Your task to perform on an android device: Clear the shopping cart on target. Search for apple airpods on target, select the first entry, add it to the cart, then select checkout. Image 0: 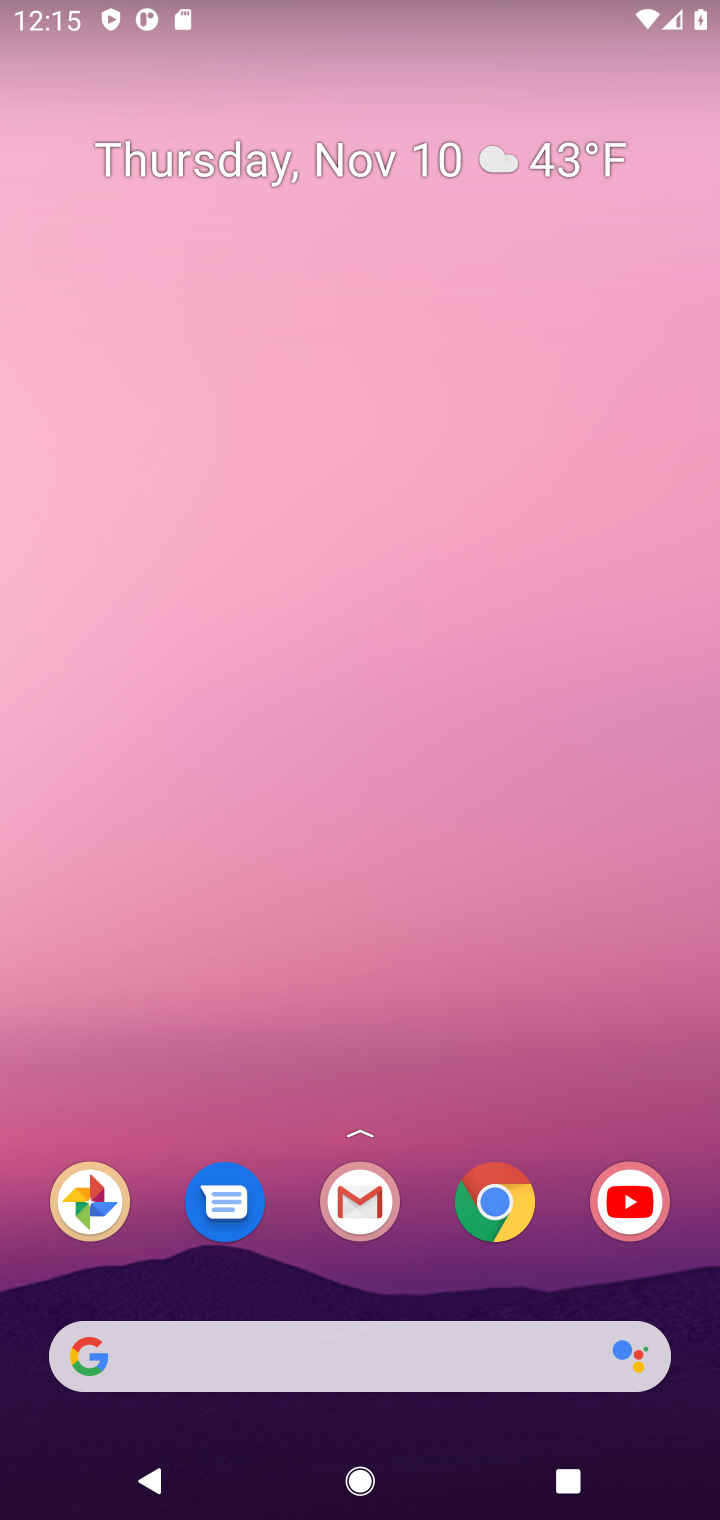
Step 0: click (518, 1208)
Your task to perform on an android device: Clear the shopping cart on target. Search for apple airpods on target, select the first entry, add it to the cart, then select checkout. Image 1: 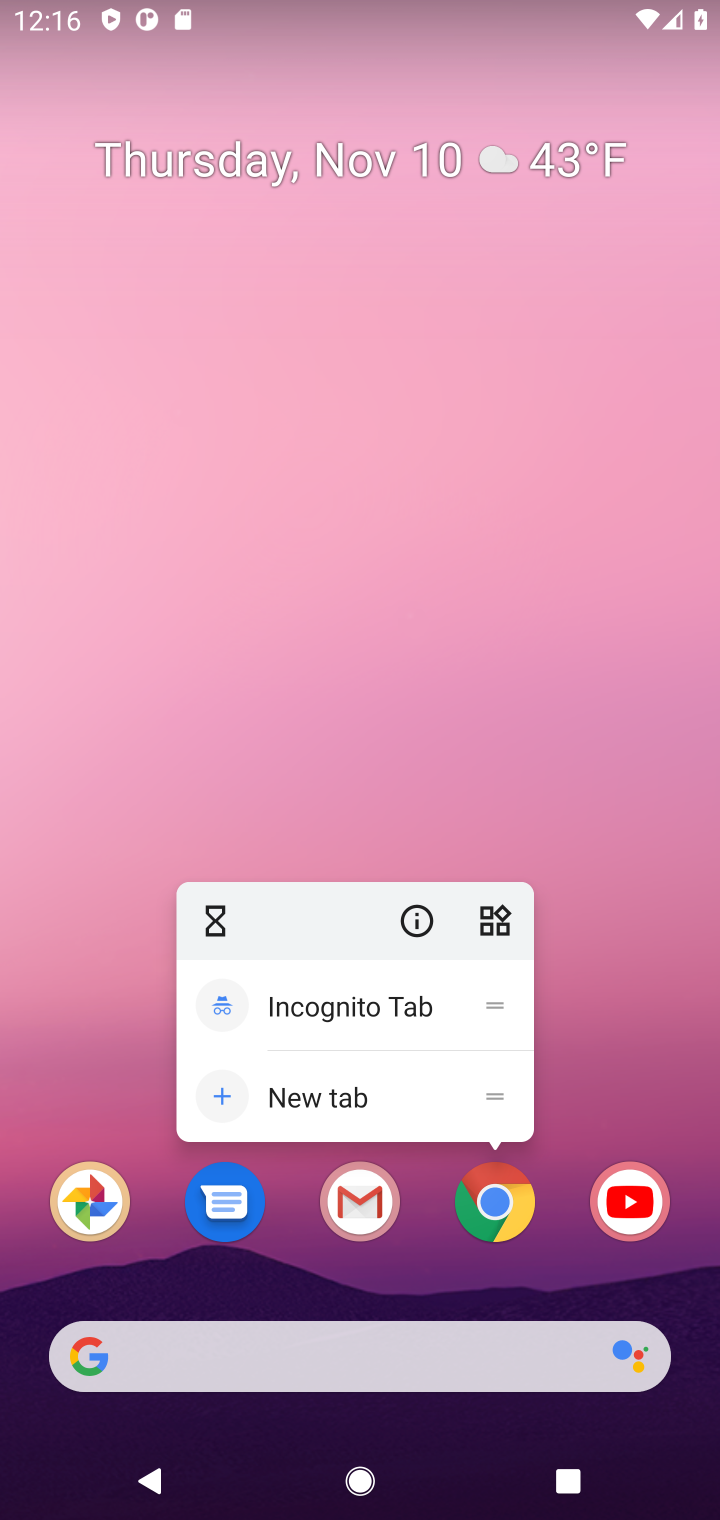
Step 1: click (518, 1208)
Your task to perform on an android device: Clear the shopping cart on target. Search for apple airpods on target, select the first entry, add it to the cart, then select checkout. Image 2: 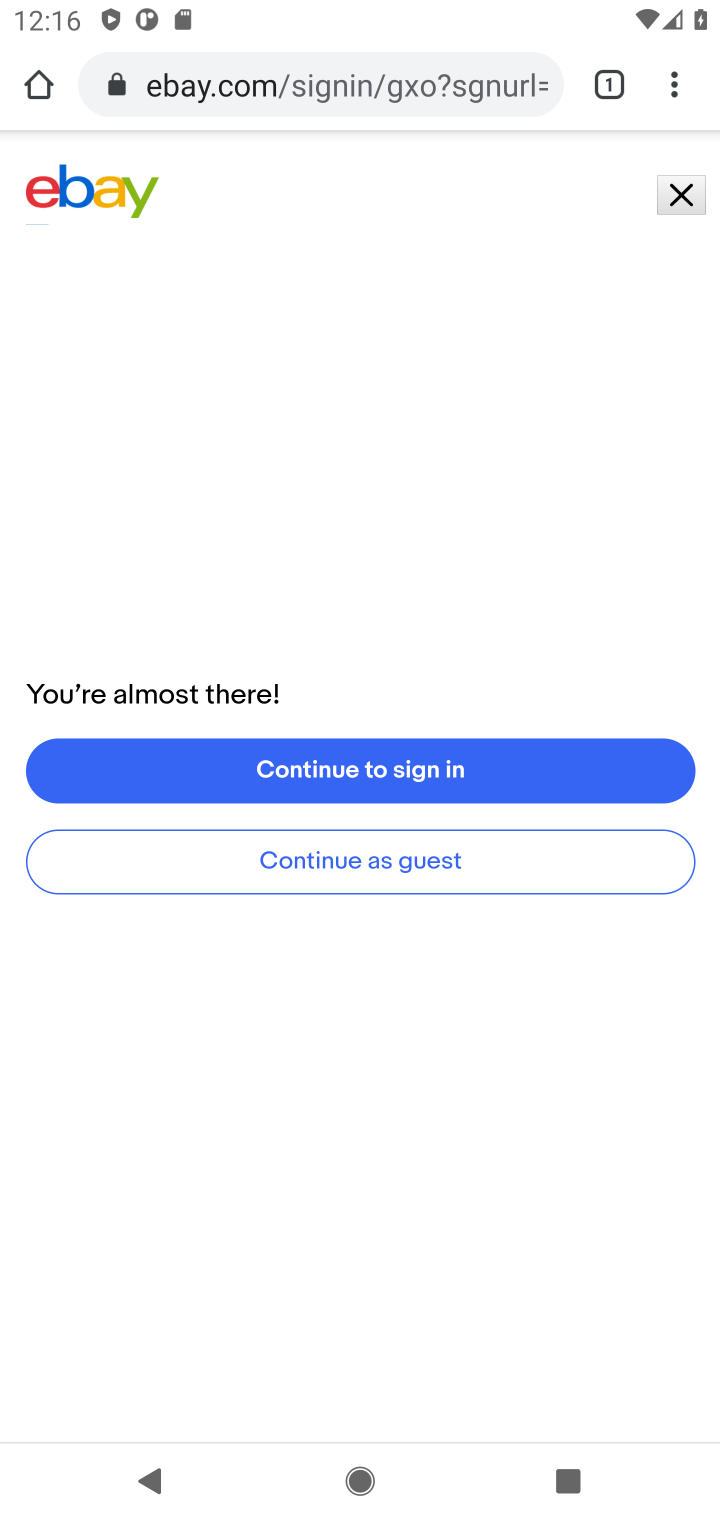
Step 2: click (463, 89)
Your task to perform on an android device: Clear the shopping cart on target. Search for apple airpods on target, select the first entry, add it to the cart, then select checkout. Image 3: 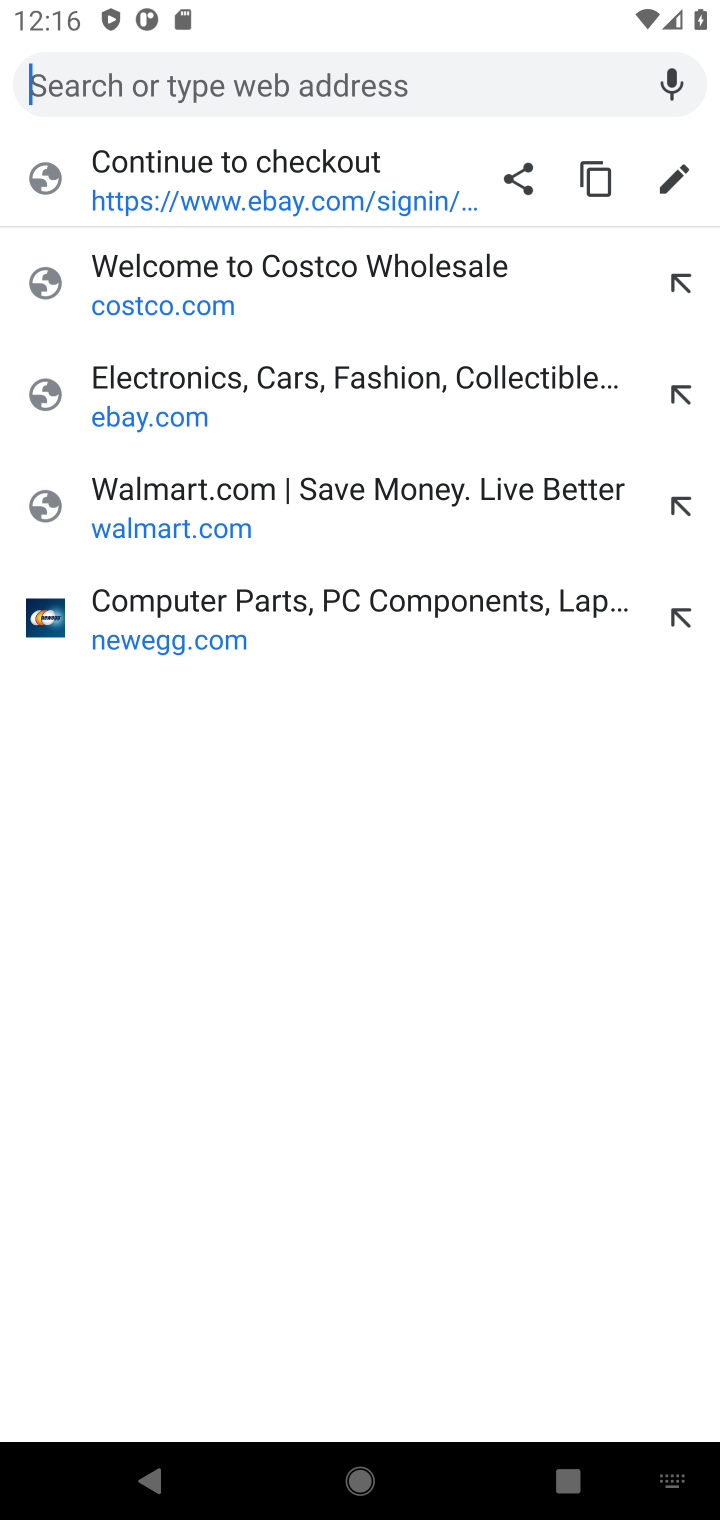
Step 3: type "target"
Your task to perform on an android device: Clear the shopping cart on target. Search for apple airpods on target, select the first entry, add it to the cart, then select checkout. Image 4: 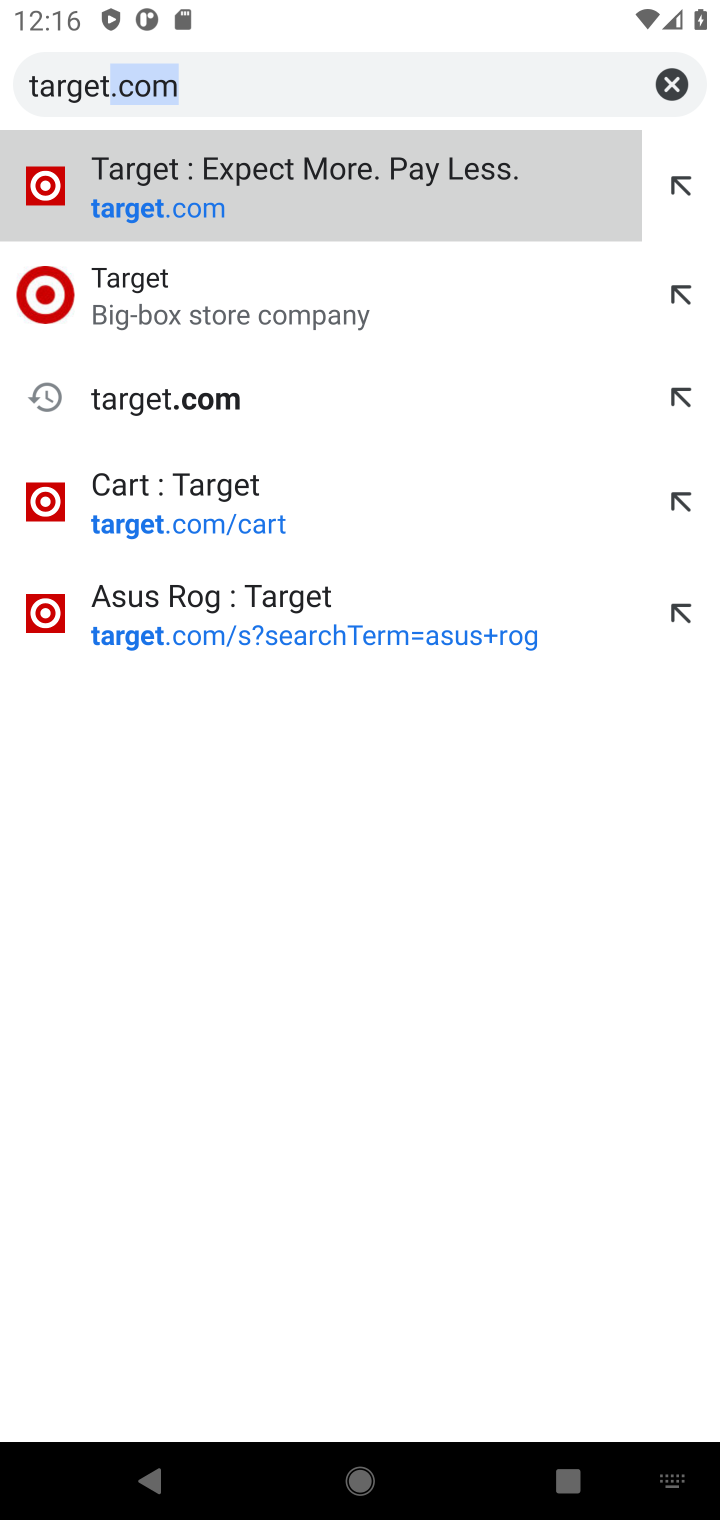
Step 4: press enter
Your task to perform on an android device: Clear the shopping cart on target. Search for apple airpods on target, select the first entry, add it to the cart, then select checkout. Image 5: 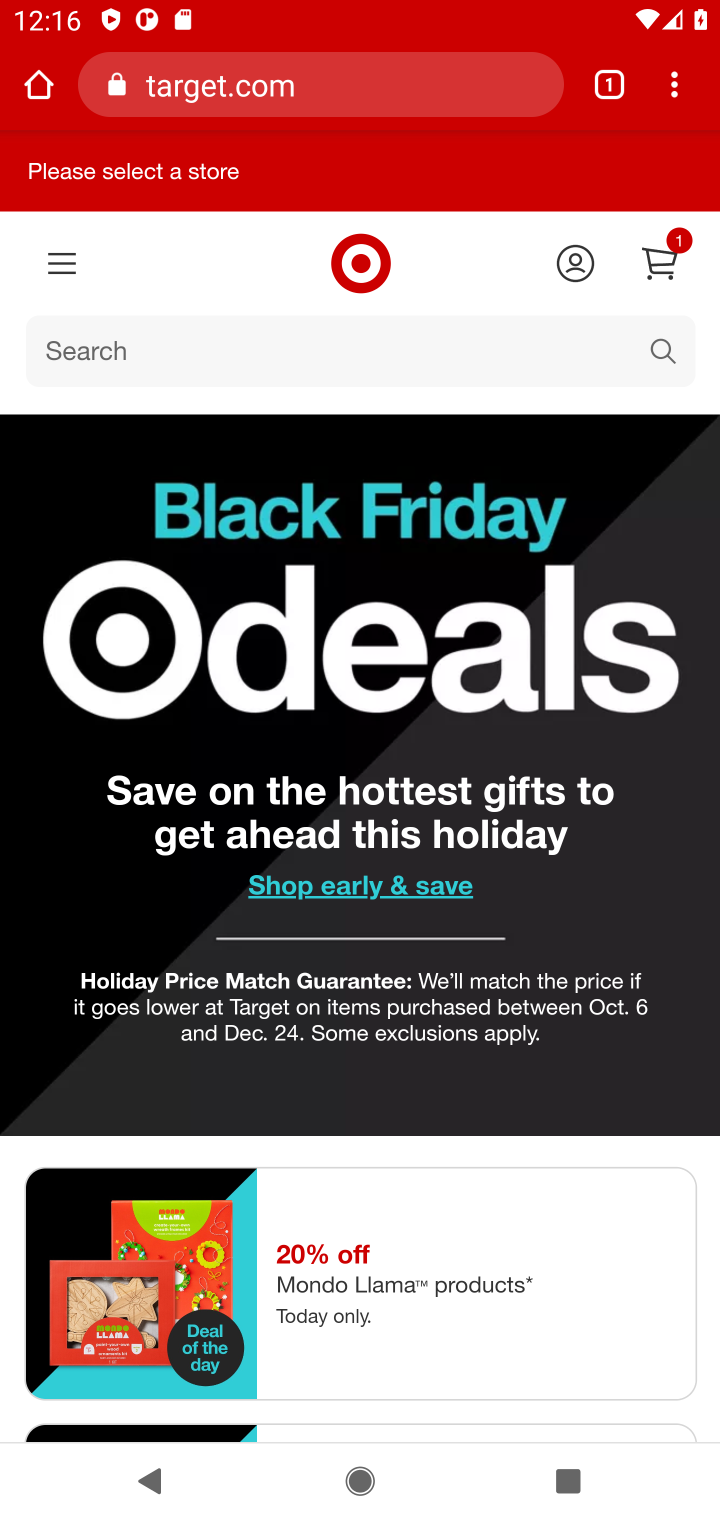
Step 5: click (656, 268)
Your task to perform on an android device: Clear the shopping cart on target. Search for apple airpods on target, select the first entry, add it to the cart, then select checkout. Image 6: 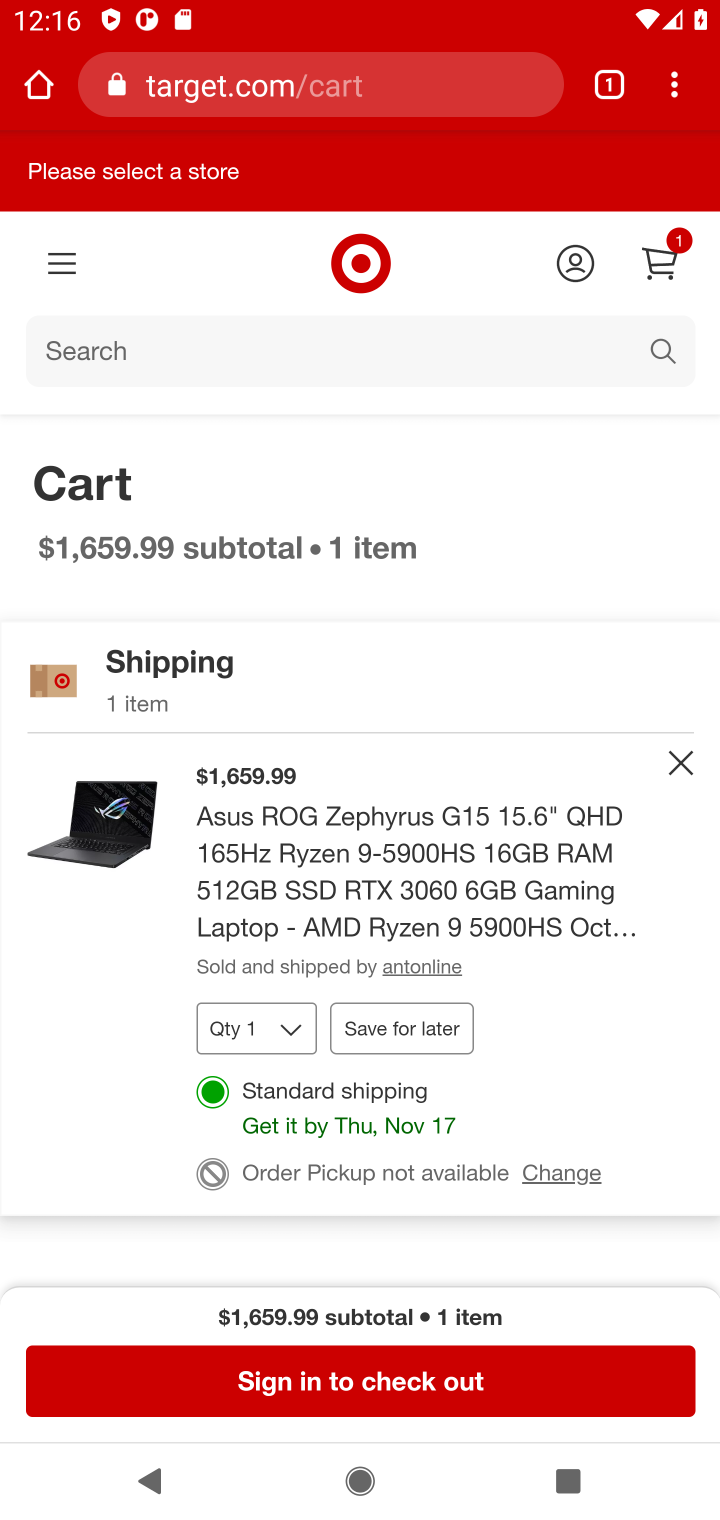
Step 6: drag from (584, 931) to (559, 569)
Your task to perform on an android device: Clear the shopping cart on target. Search for apple airpods on target, select the first entry, add it to the cart, then select checkout. Image 7: 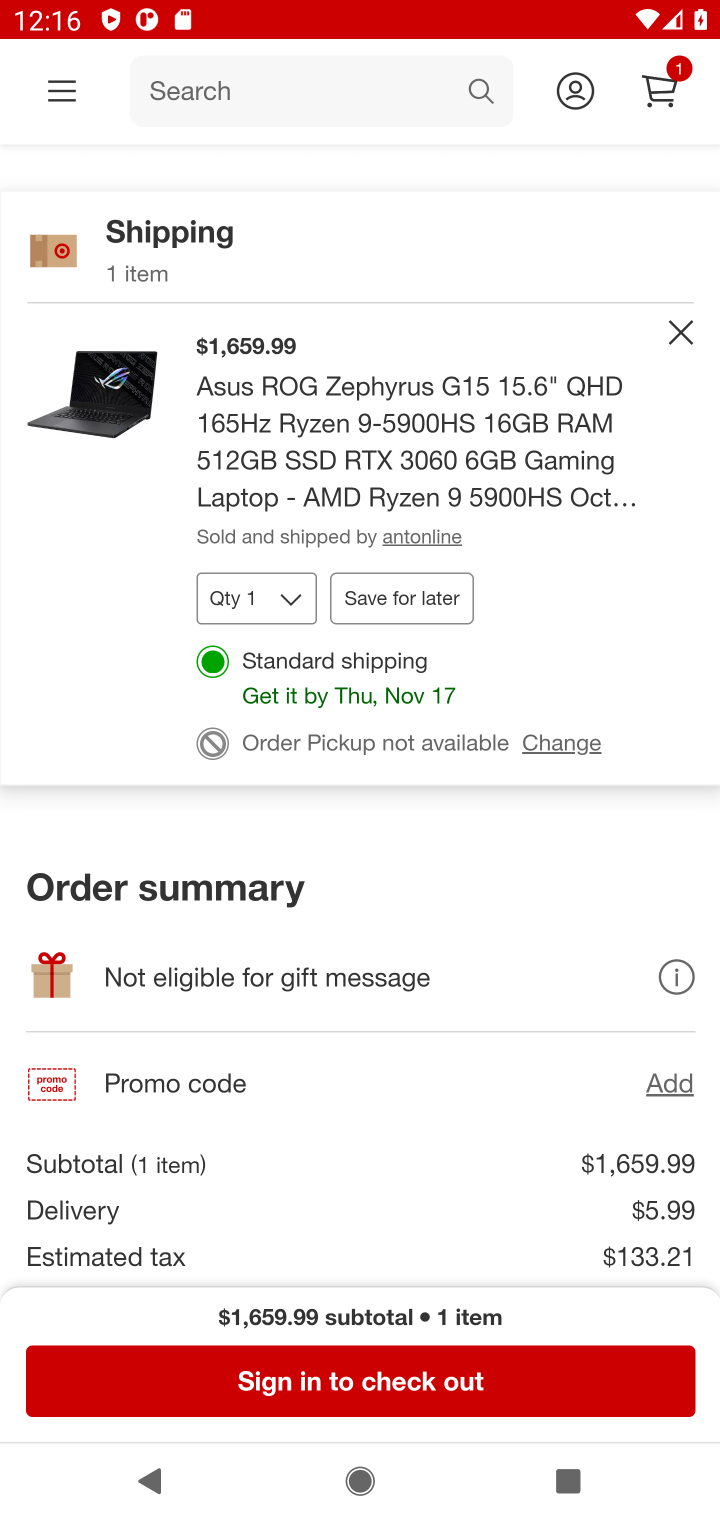
Step 7: click (685, 332)
Your task to perform on an android device: Clear the shopping cart on target. Search for apple airpods on target, select the first entry, add it to the cart, then select checkout. Image 8: 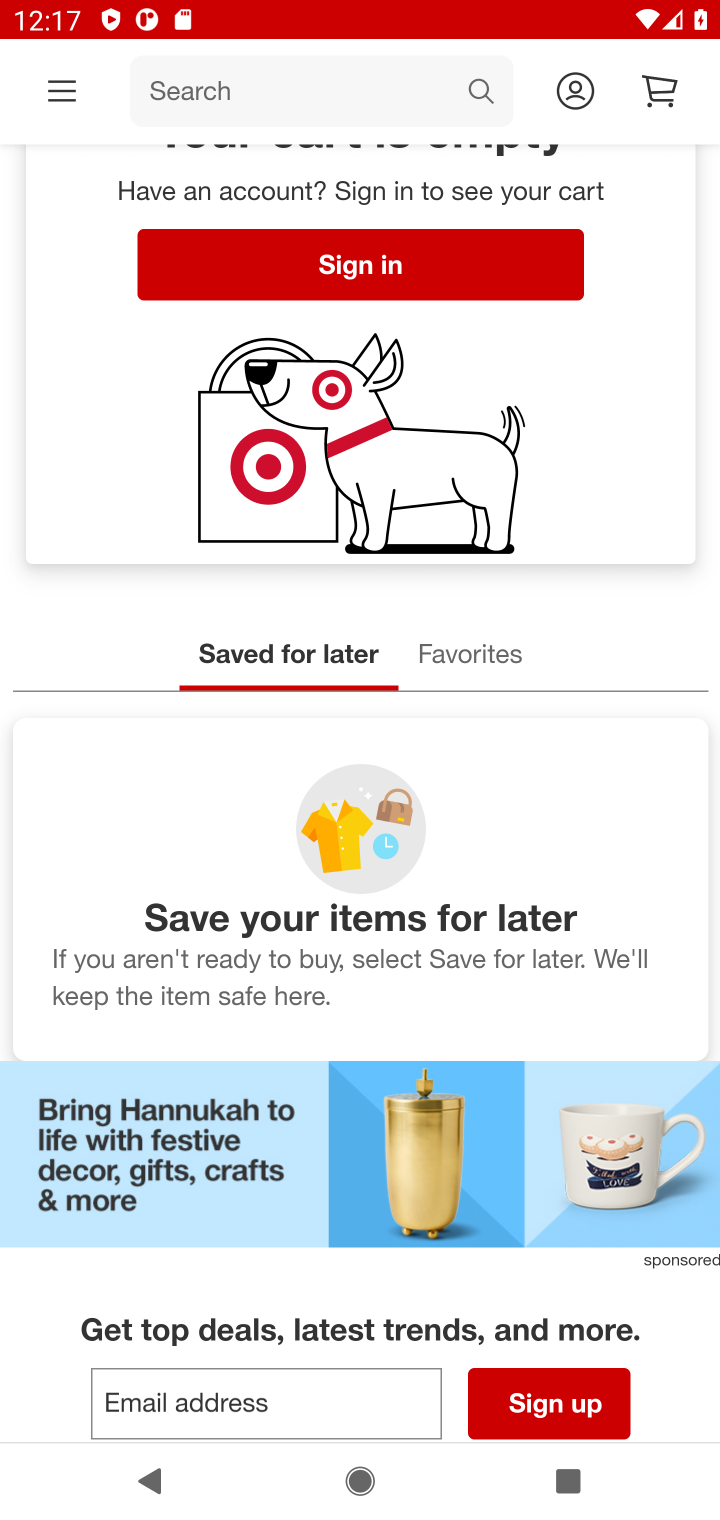
Step 8: drag from (526, 472) to (717, 1185)
Your task to perform on an android device: Clear the shopping cart on target. Search for apple airpods on target, select the first entry, add it to the cart, then select checkout. Image 9: 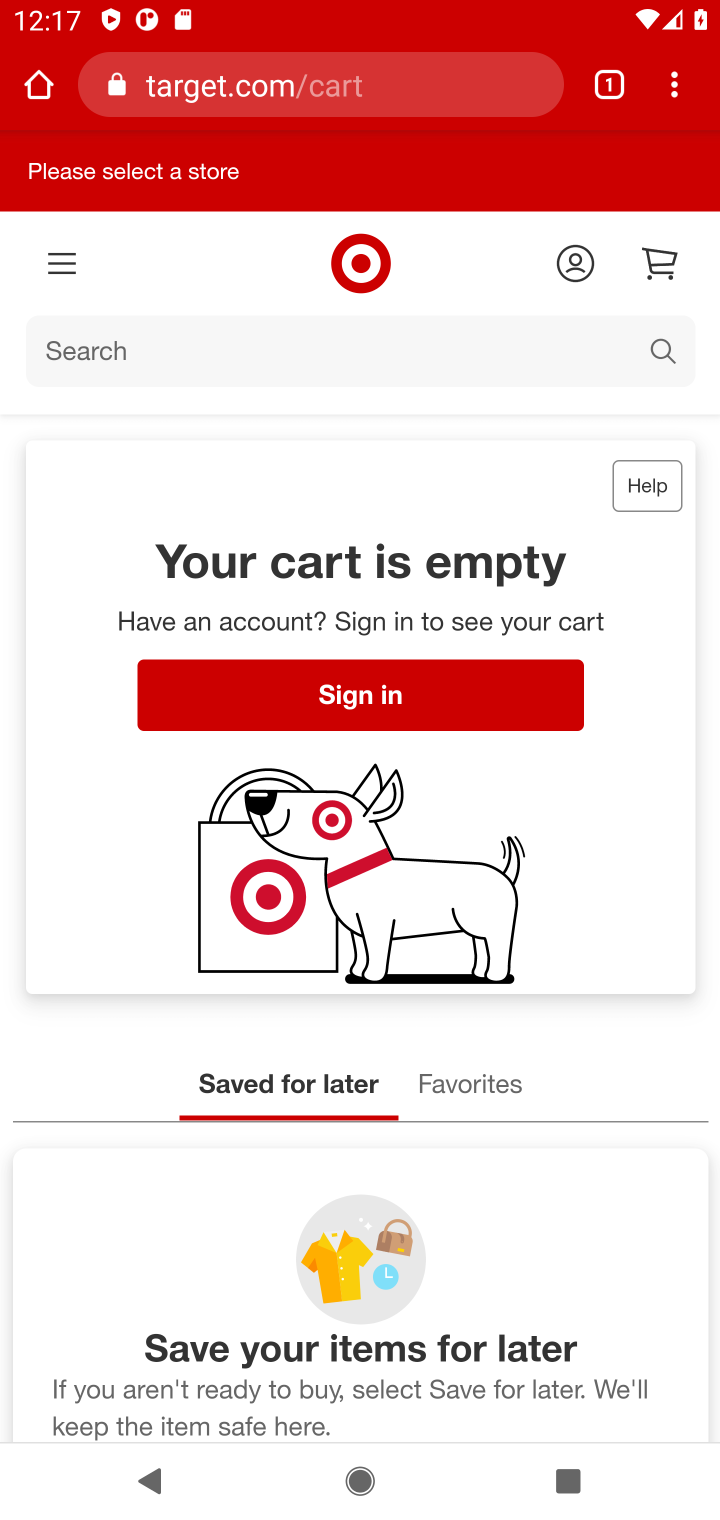
Step 9: click (662, 356)
Your task to perform on an android device: Clear the shopping cart on target. Search for apple airpods on target, select the first entry, add it to the cart, then select checkout. Image 10: 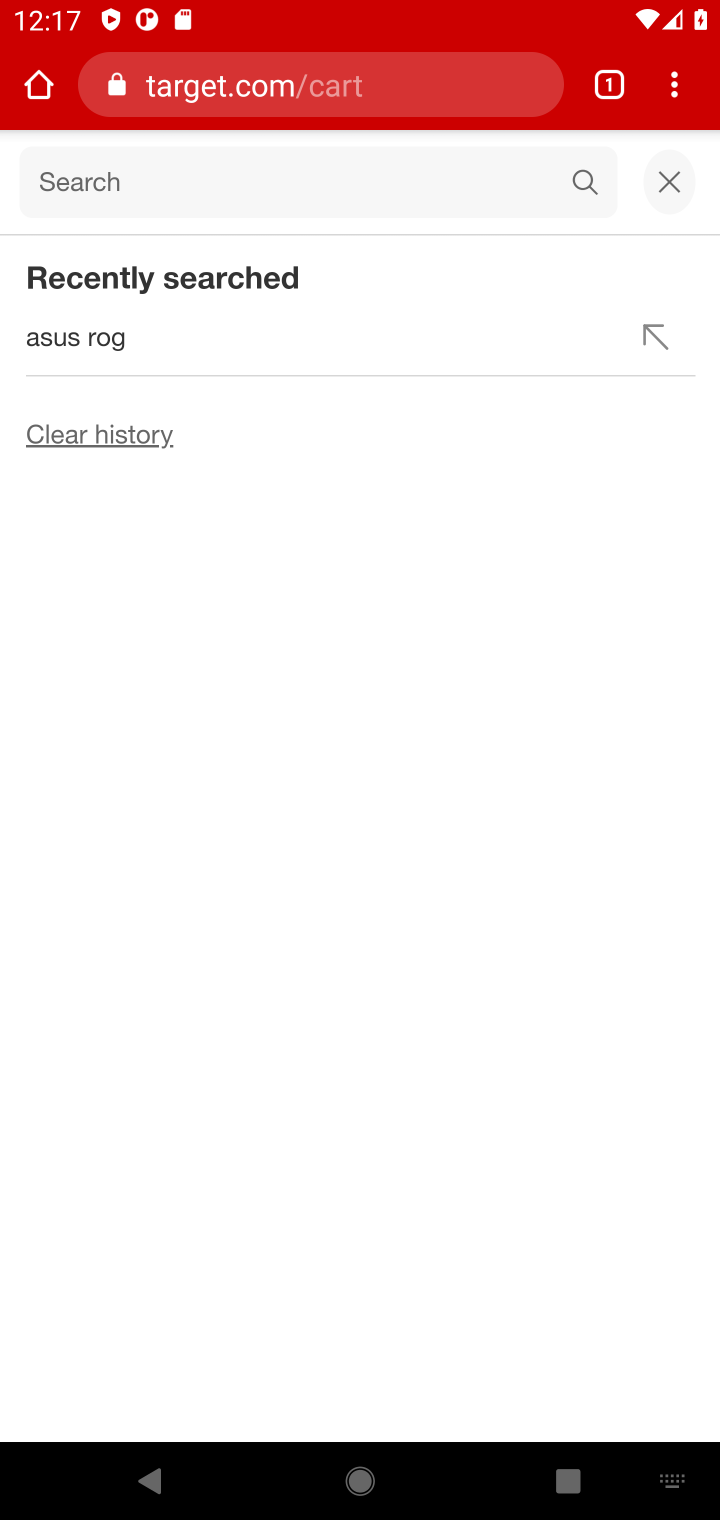
Step 10: type "apple airpods"
Your task to perform on an android device: Clear the shopping cart on target. Search for apple airpods on target, select the first entry, add it to the cart, then select checkout. Image 11: 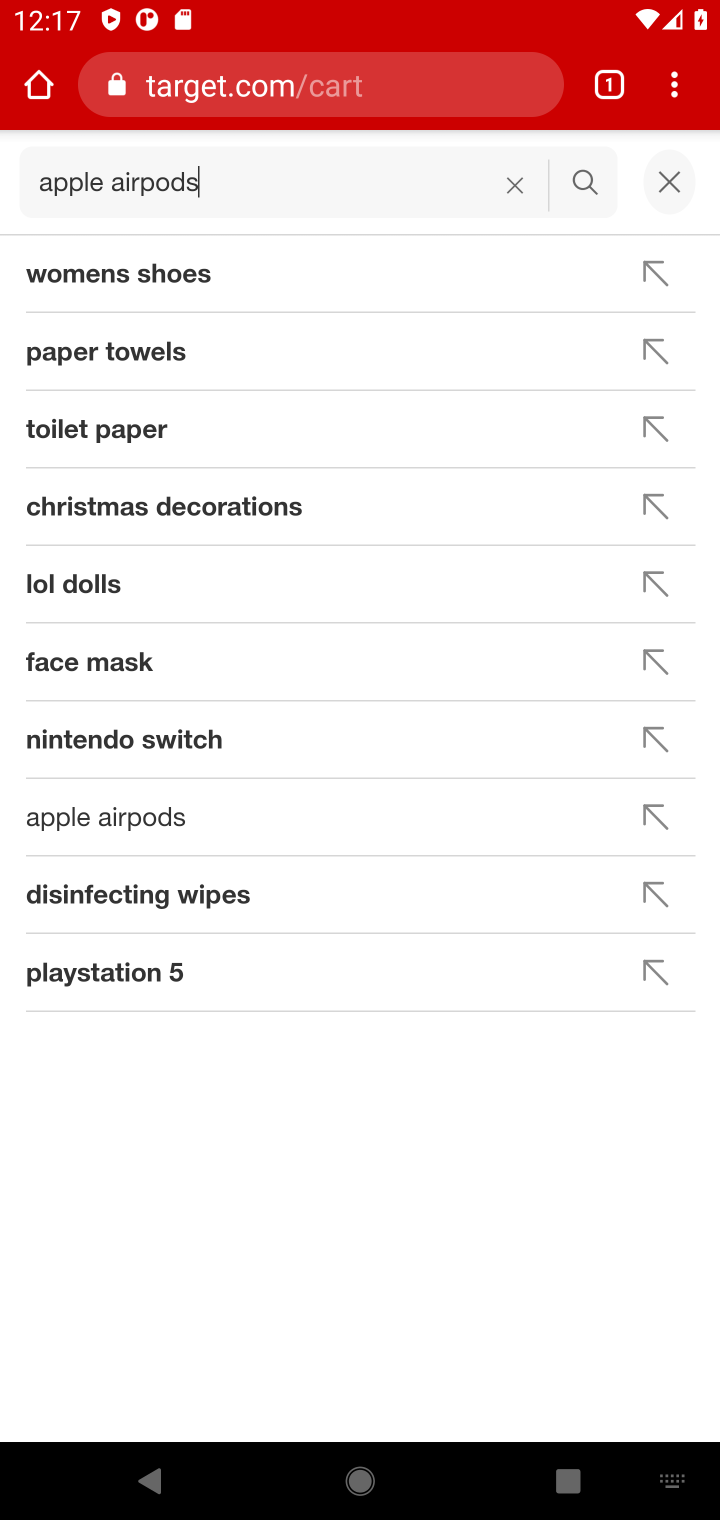
Step 11: press enter
Your task to perform on an android device: Clear the shopping cart on target. Search for apple airpods on target, select the first entry, add it to the cart, then select checkout. Image 12: 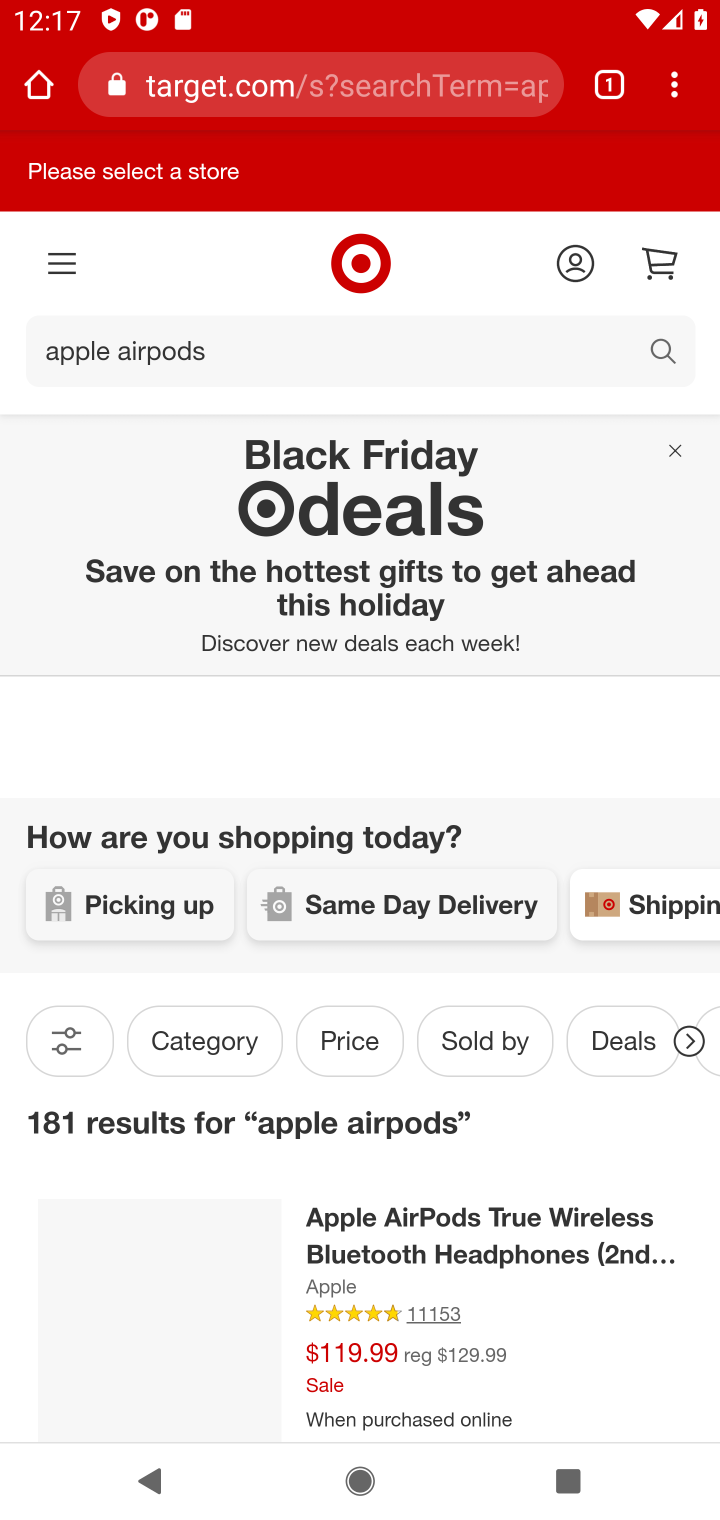
Step 12: drag from (564, 1262) to (447, 718)
Your task to perform on an android device: Clear the shopping cart on target. Search for apple airpods on target, select the first entry, add it to the cart, then select checkout. Image 13: 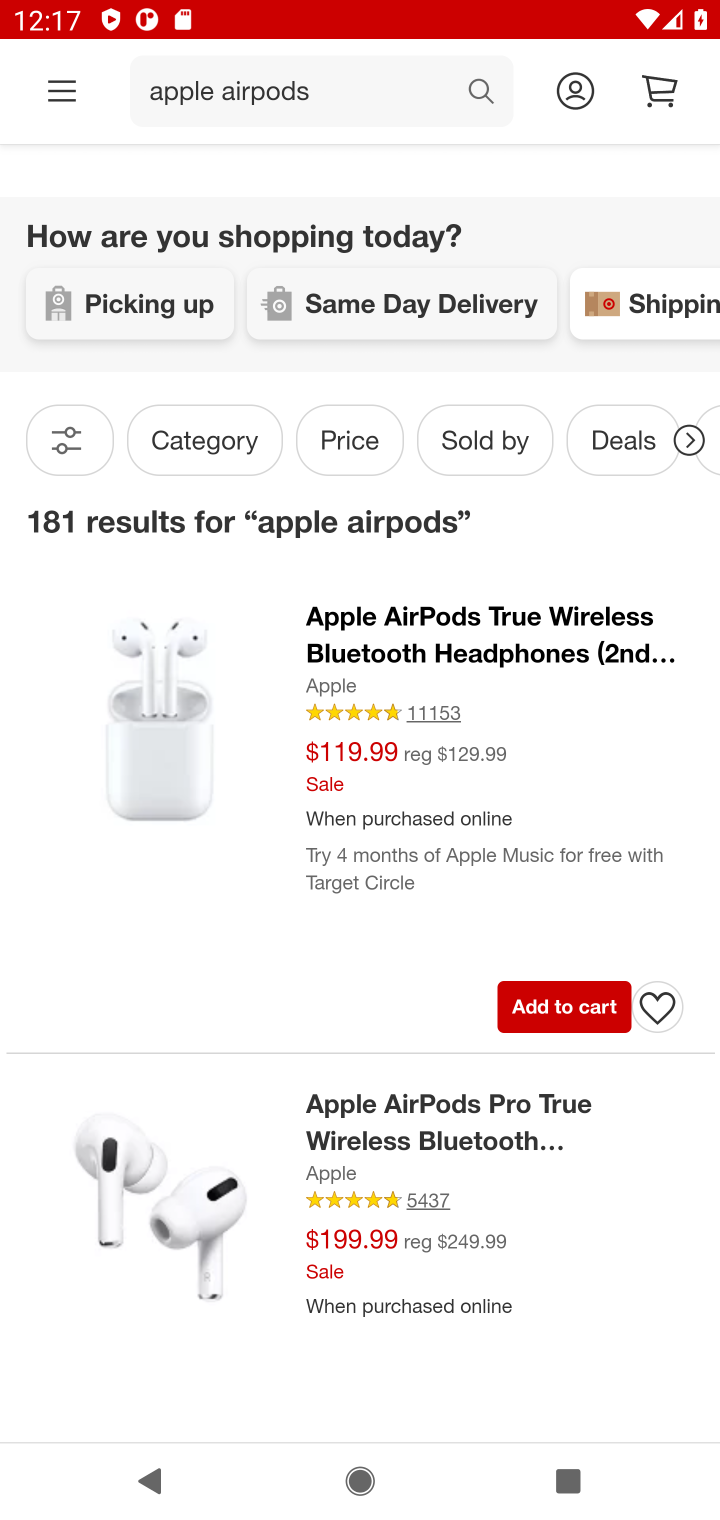
Step 13: click (177, 767)
Your task to perform on an android device: Clear the shopping cart on target. Search for apple airpods on target, select the first entry, add it to the cart, then select checkout. Image 14: 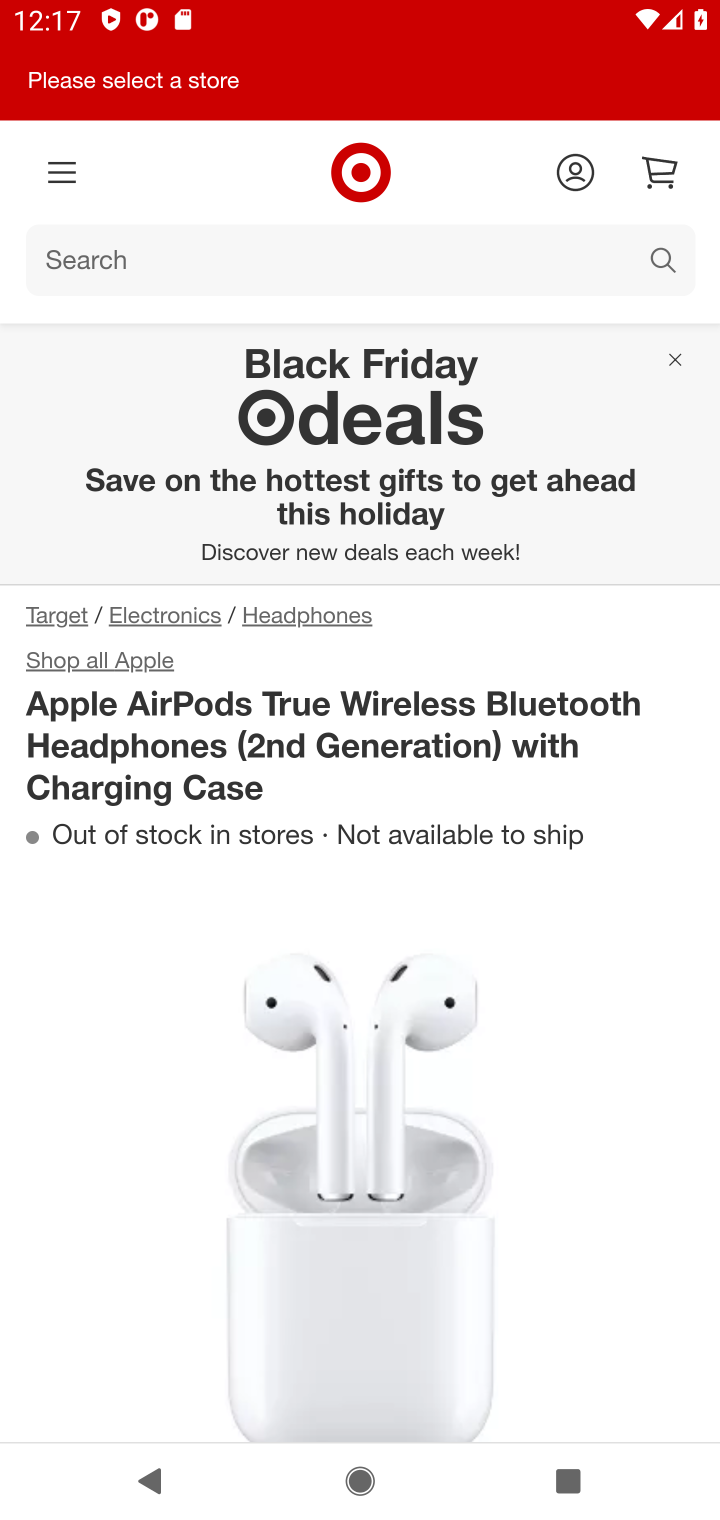
Step 14: drag from (572, 1235) to (533, 678)
Your task to perform on an android device: Clear the shopping cart on target. Search for apple airpods on target, select the first entry, add it to the cart, then select checkout. Image 15: 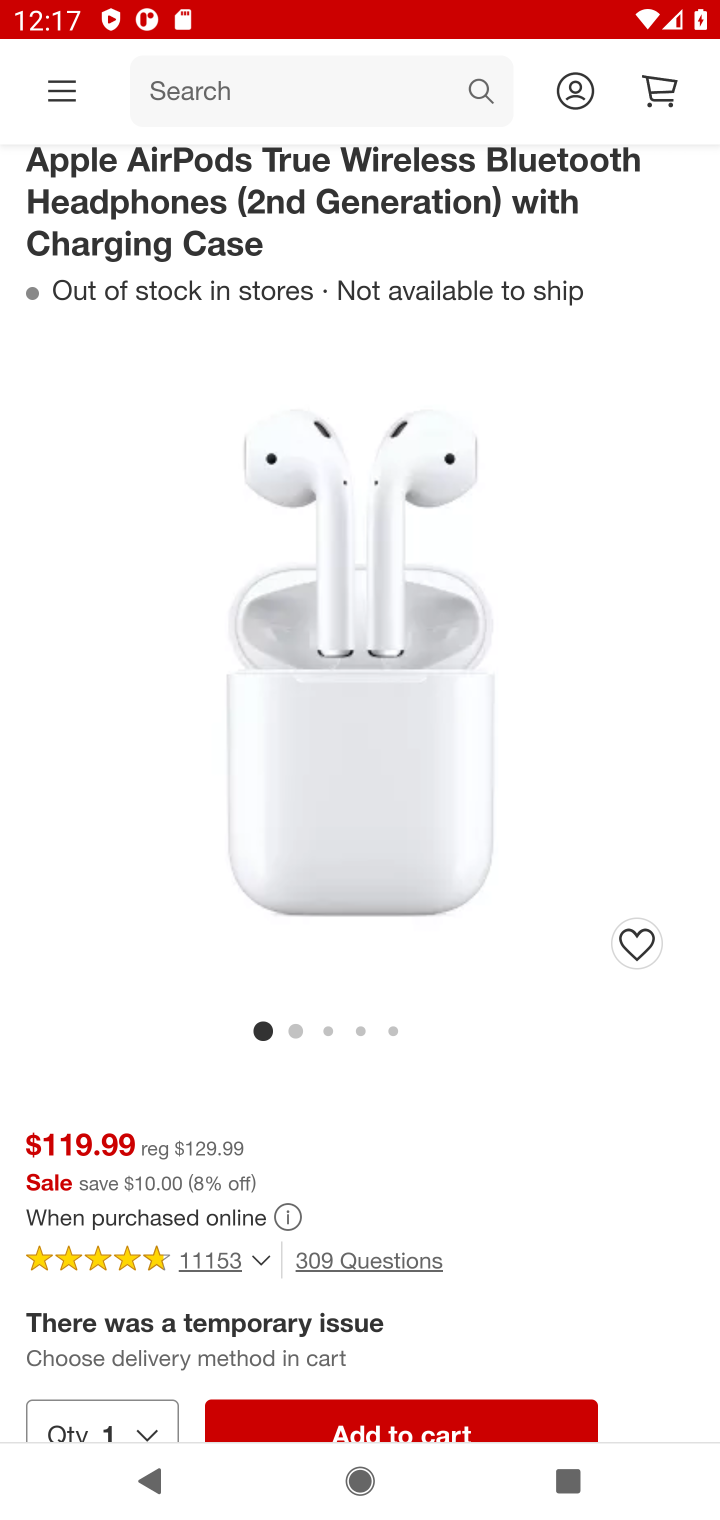
Step 15: drag from (631, 1178) to (506, 498)
Your task to perform on an android device: Clear the shopping cart on target. Search for apple airpods on target, select the first entry, add it to the cart, then select checkout. Image 16: 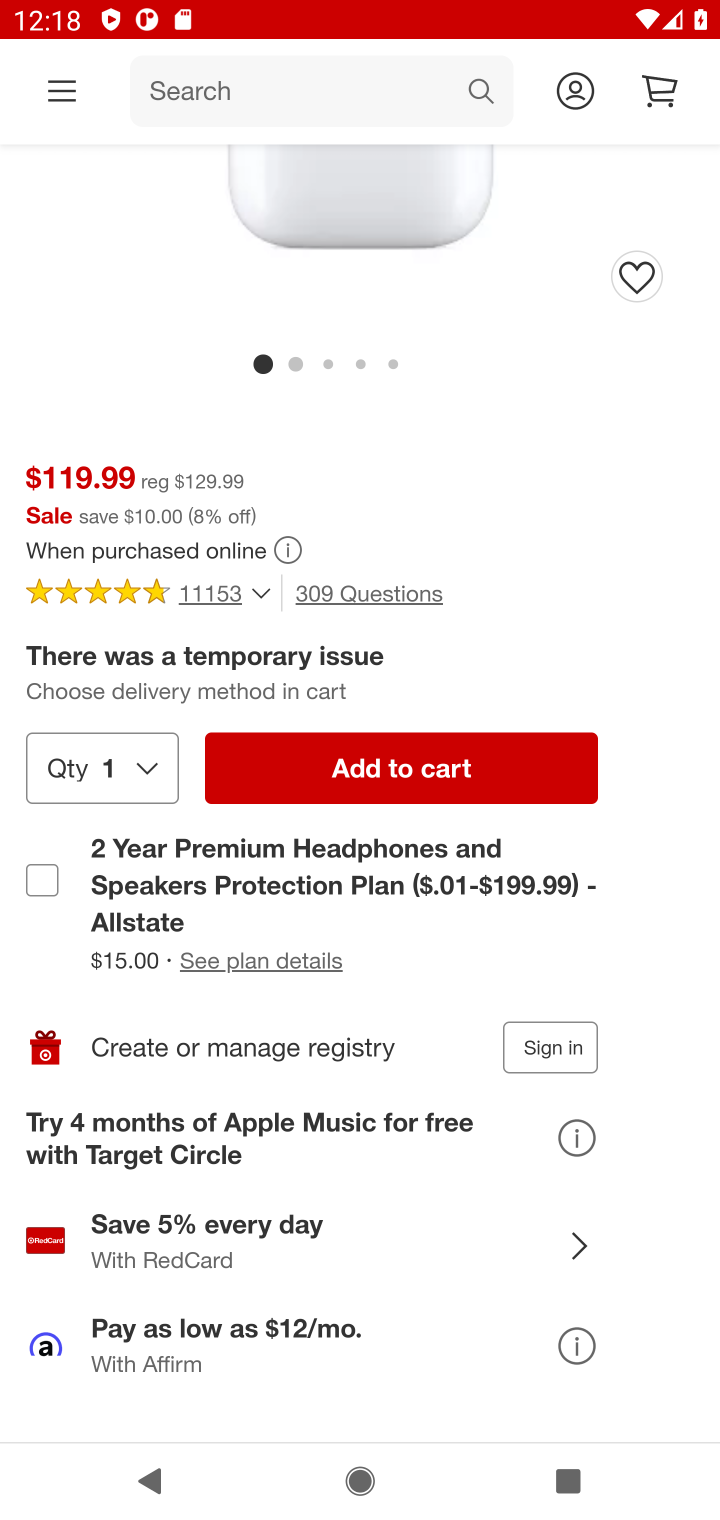
Step 16: click (424, 758)
Your task to perform on an android device: Clear the shopping cart on target. Search for apple airpods on target, select the first entry, add it to the cart, then select checkout. Image 17: 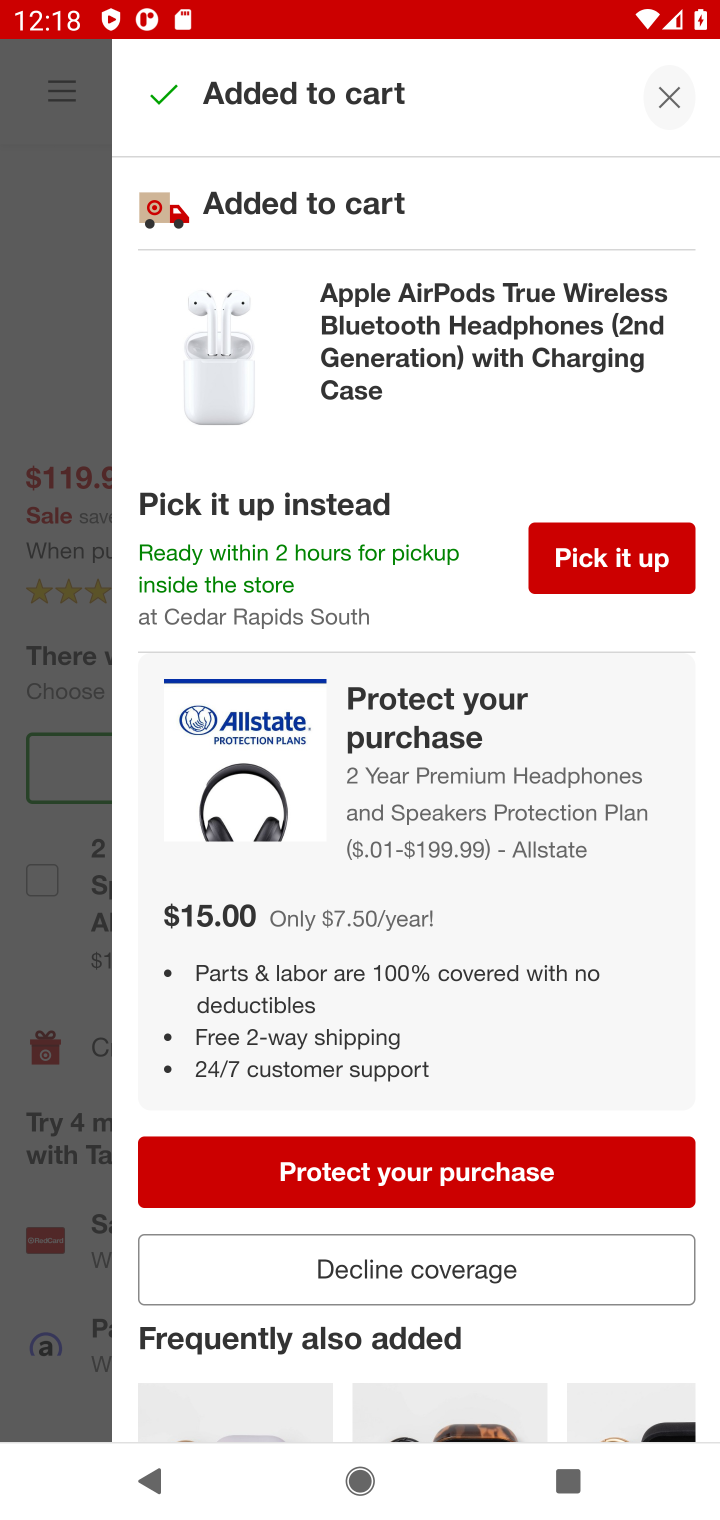
Step 17: click (671, 96)
Your task to perform on an android device: Clear the shopping cart on target. Search for apple airpods on target, select the first entry, add it to the cart, then select checkout. Image 18: 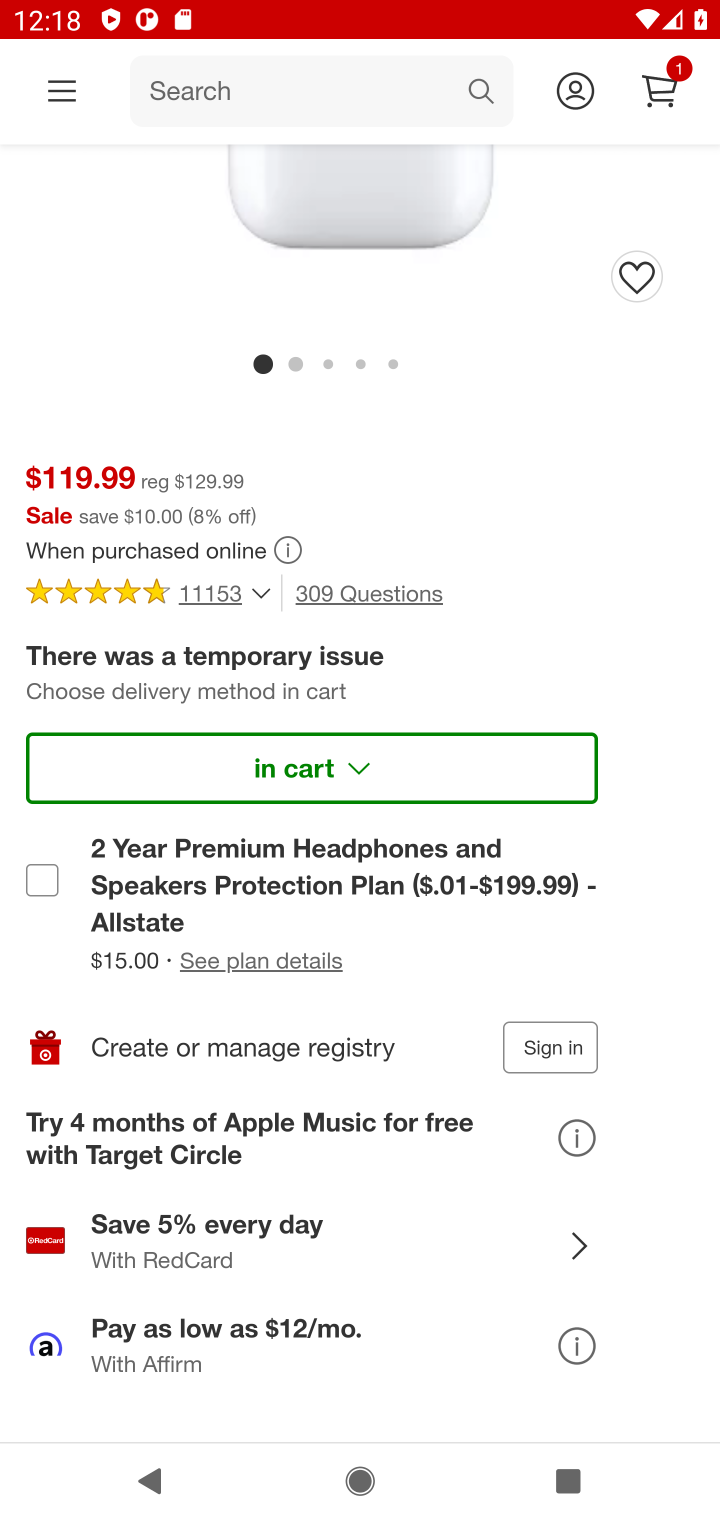
Step 18: click (671, 96)
Your task to perform on an android device: Clear the shopping cart on target. Search for apple airpods on target, select the first entry, add it to the cart, then select checkout. Image 19: 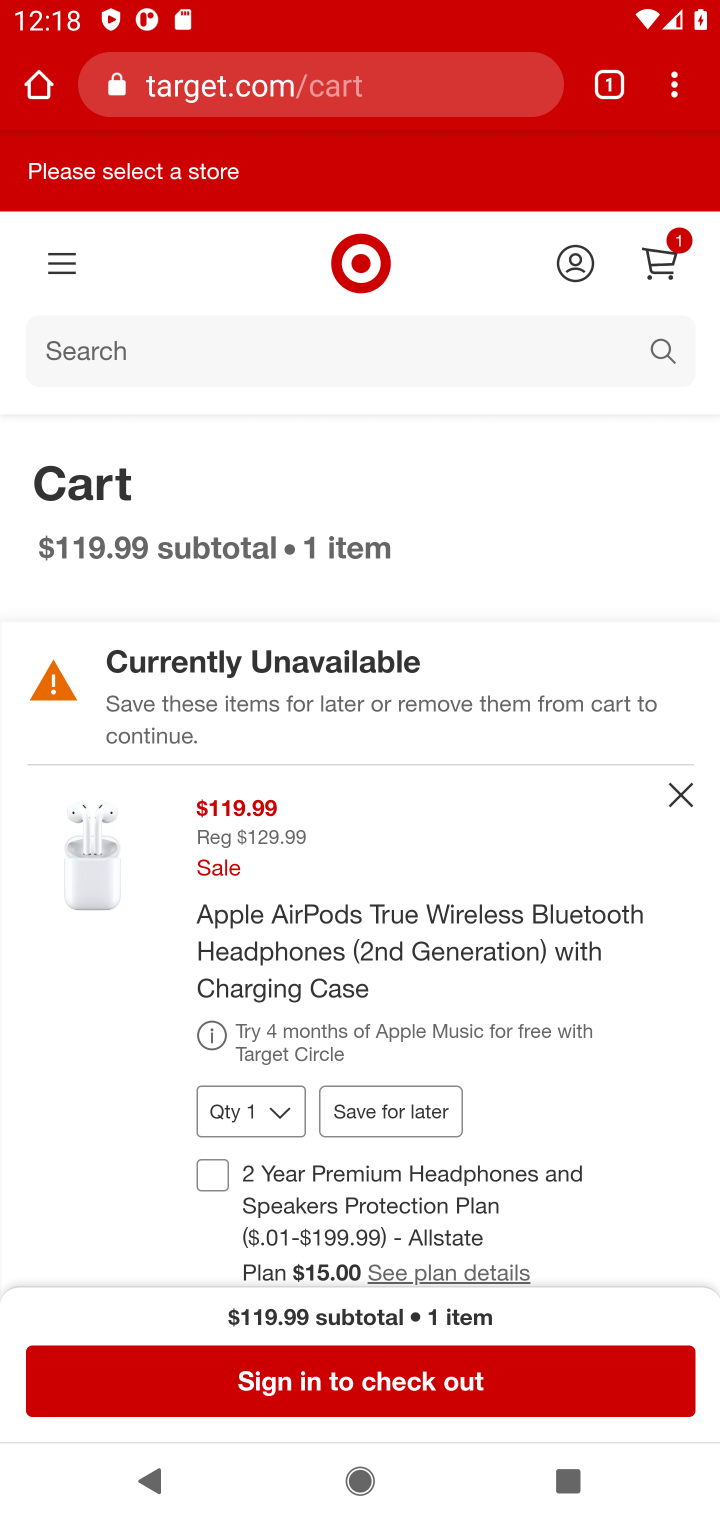
Step 19: click (414, 1372)
Your task to perform on an android device: Clear the shopping cart on target. Search for apple airpods on target, select the first entry, add it to the cart, then select checkout. Image 20: 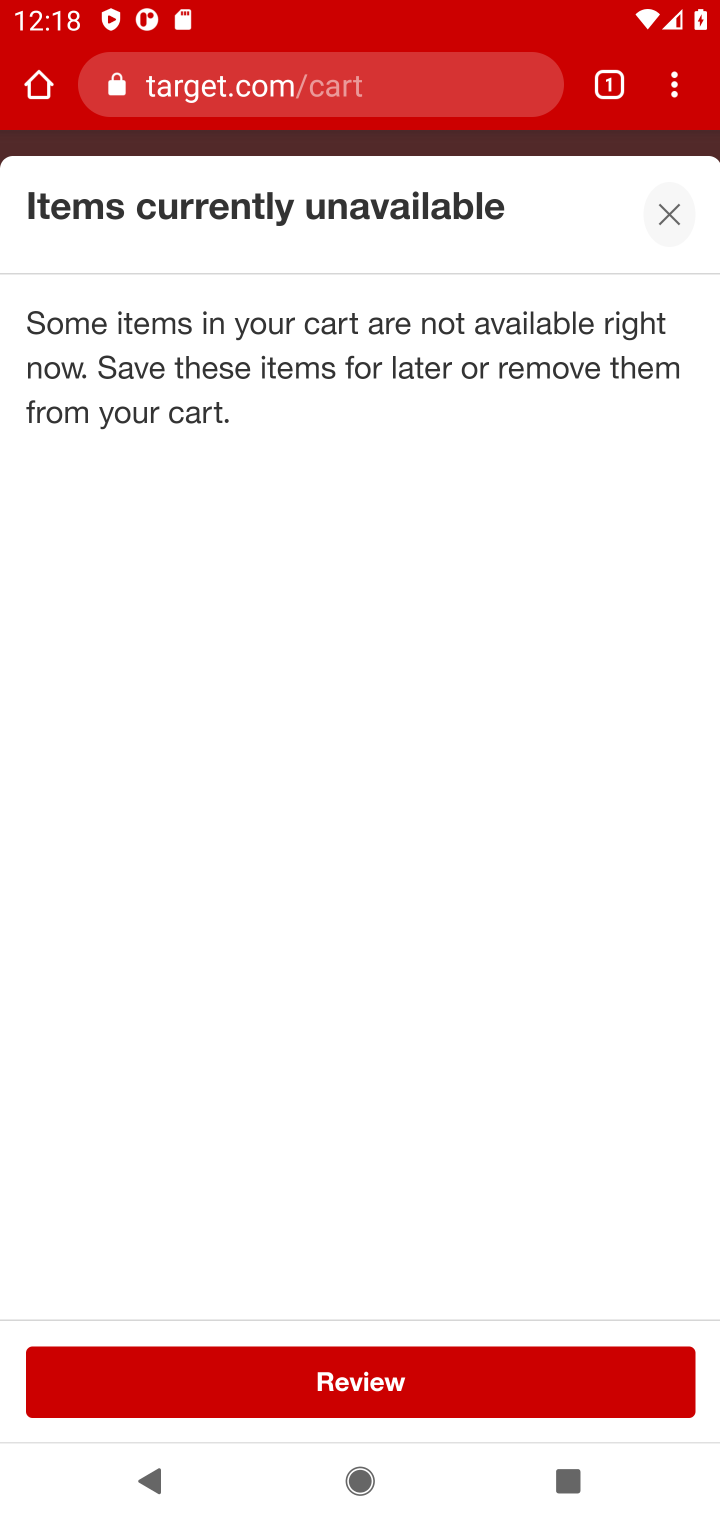
Step 20: task complete